Your task to perform on an android device: Open network settings Image 0: 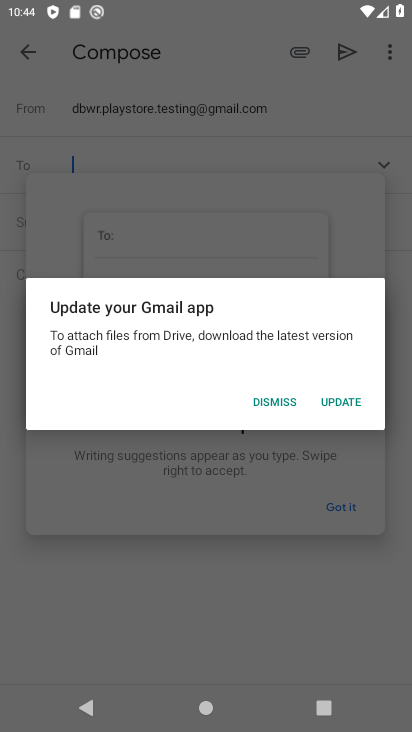
Step 0: press back button
Your task to perform on an android device: Open network settings Image 1: 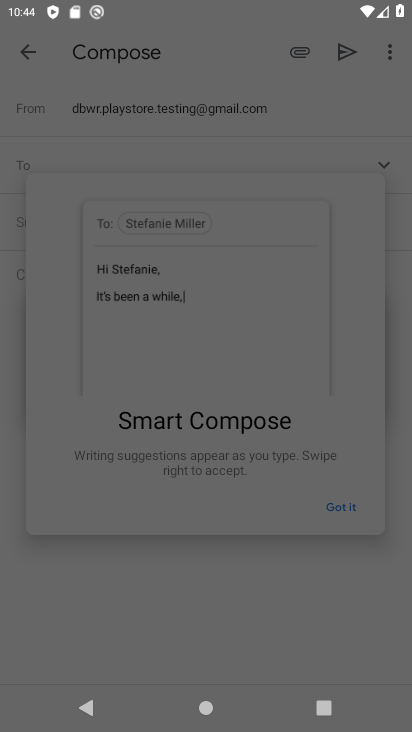
Step 1: press home button
Your task to perform on an android device: Open network settings Image 2: 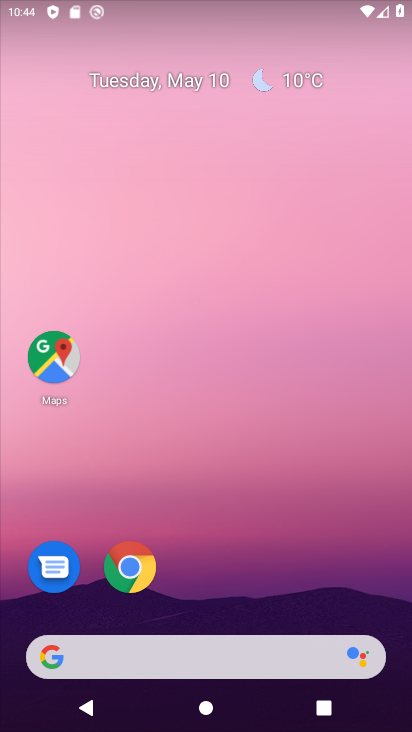
Step 2: drag from (149, 644) to (202, 93)
Your task to perform on an android device: Open network settings Image 3: 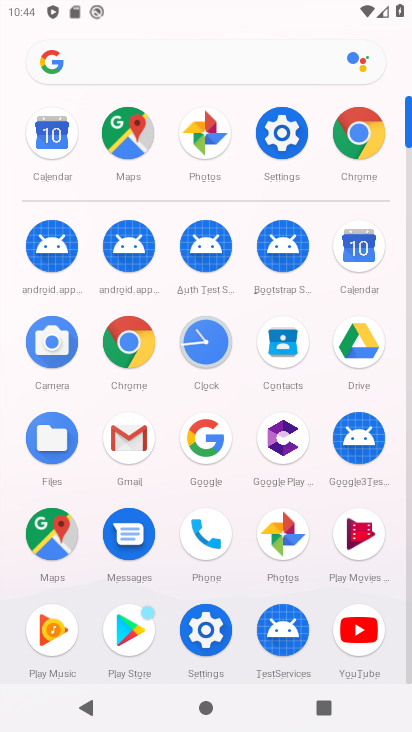
Step 3: click (291, 148)
Your task to perform on an android device: Open network settings Image 4: 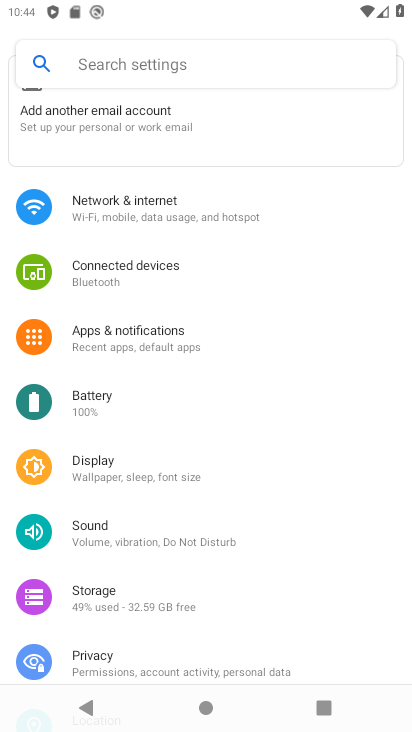
Step 4: click (153, 203)
Your task to perform on an android device: Open network settings Image 5: 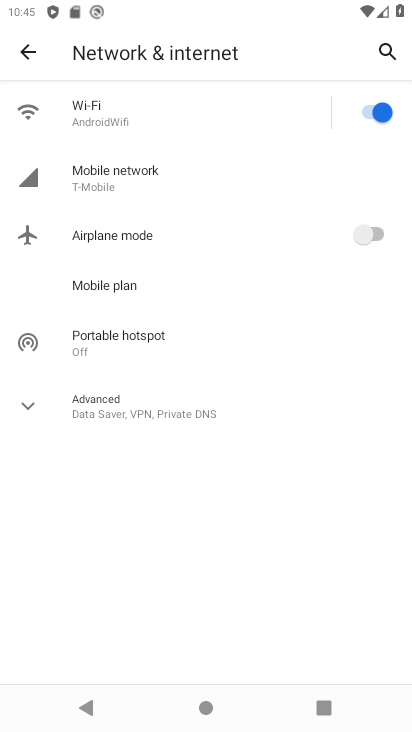
Step 5: task complete